Your task to perform on an android device: set an alarm Image 0: 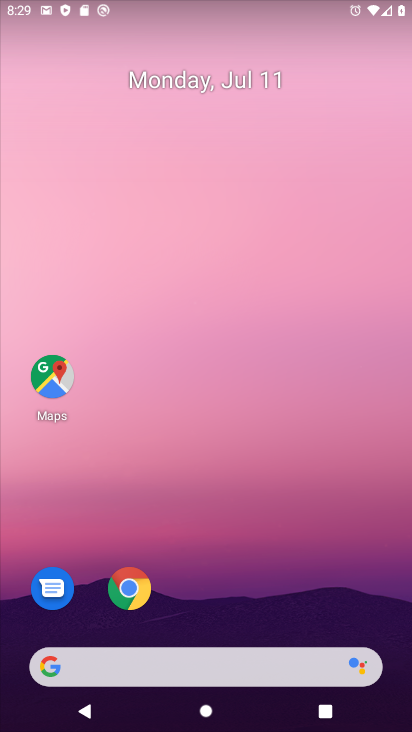
Step 0: drag from (236, 661) to (402, 93)
Your task to perform on an android device: set an alarm Image 1: 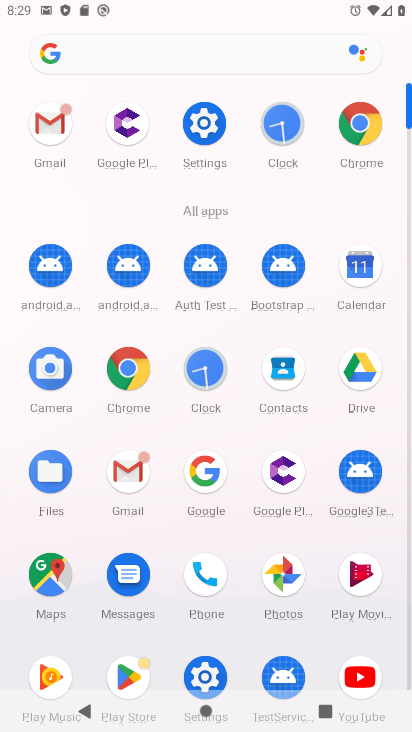
Step 1: click (281, 126)
Your task to perform on an android device: set an alarm Image 2: 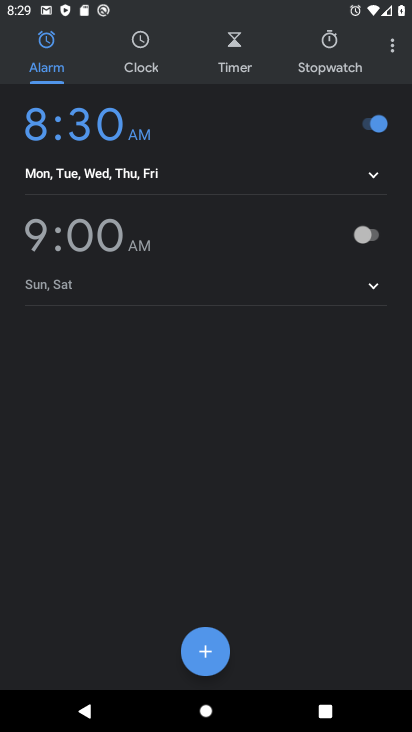
Step 2: click (377, 234)
Your task to perform on an android device: set an alarm Image 3: 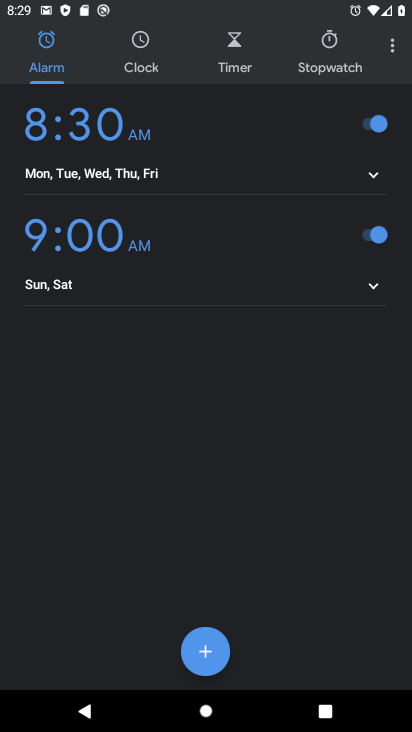
Step 3: task complete